Your task to perform on an android device: What's on my calendar tomorrow? Image 0: 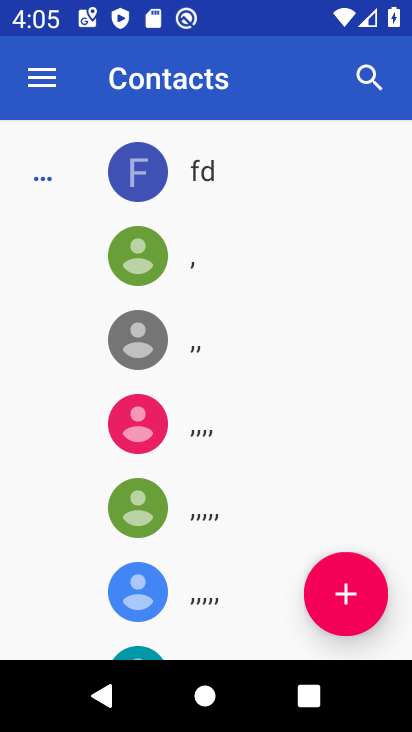
Step 0: press home button
Your task to perform on an android device: What's on my calendar tomorrow? Image 1: 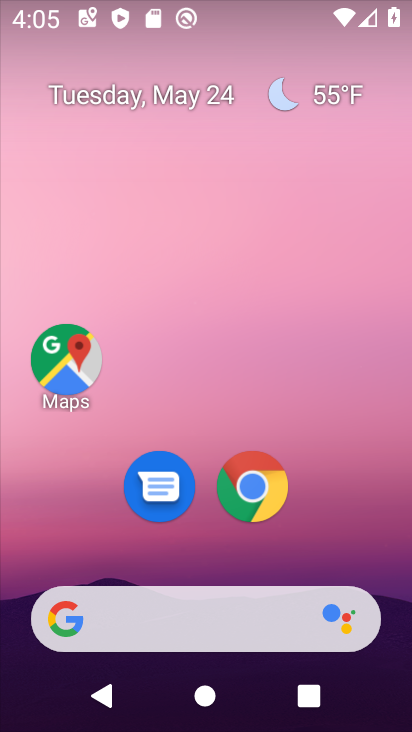
Step 1: drag from (307, 512) to (278, 181)
Your task to perform on an android device: What's on my calendar tomorrow? Image 2: 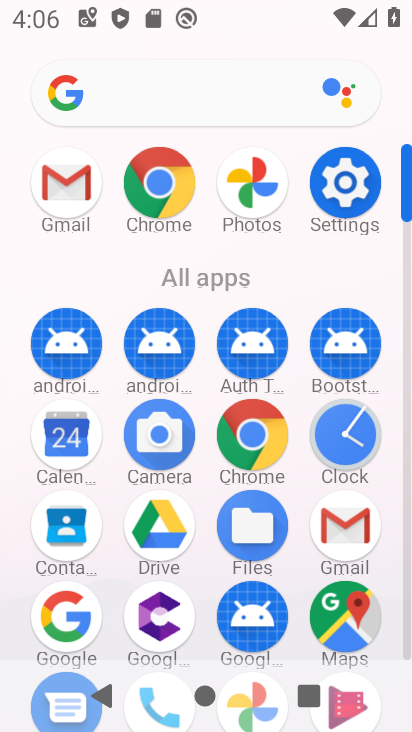
Step 2: click (54, 437)
Your task to perform on an android device: What's on my calendar tomorrow? Image 3: 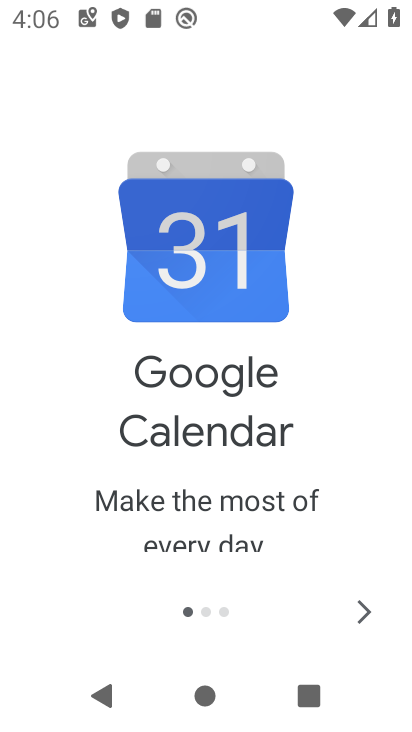
Step 3: click (362, 613)
Your task to perform on an android device: What's on my calendar tomorrow? Image 4: 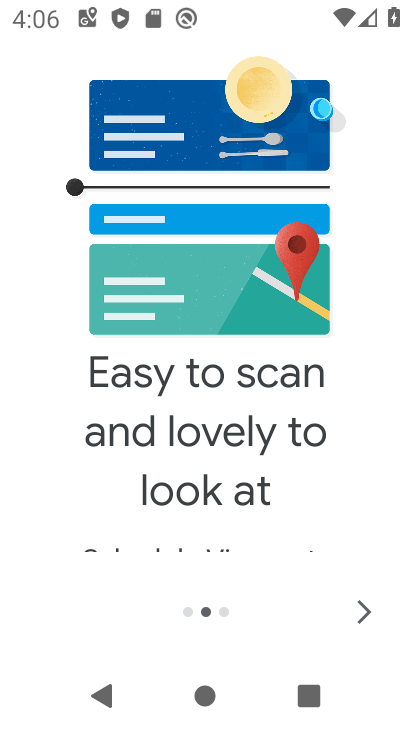
Step 4: click (362, 612)
Your task to perform on an android device: What's on my calendar tomorrow? Image 5: 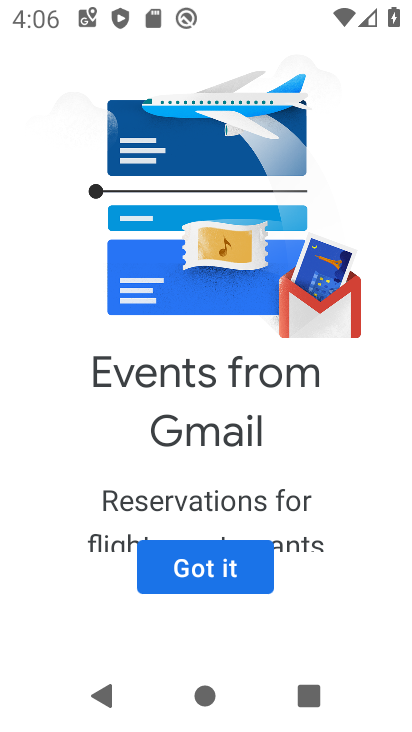
Step 5: click (227, 558)
Your task to perform on an android device: What's on my calendar tomorrow? Image 6: 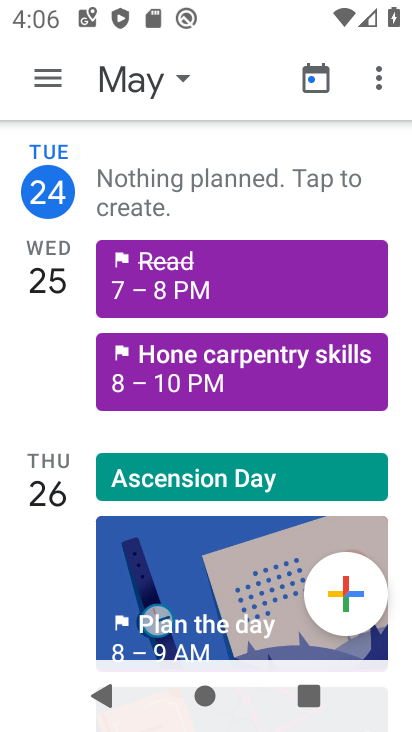
Step 6: click (39, 77)
Your task to perform on an android device: What's on my calendar tomorrow? Image 7: 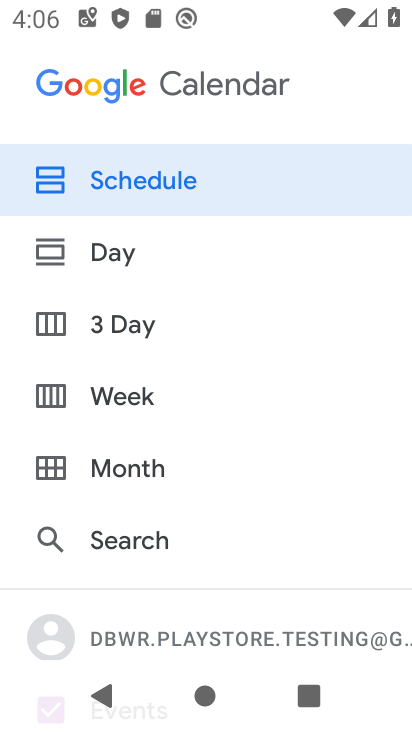
Step 7: click (109, 468)
Your task to perform on an android device: What's on my calendar tomorrow? Image 8: 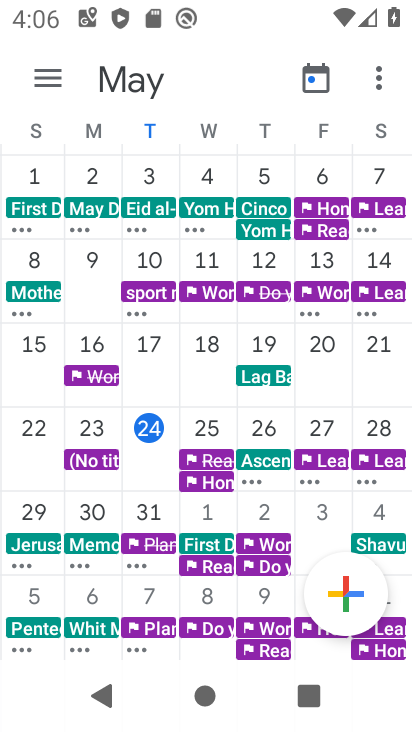
Step 8: click (197, 434)
Your task to perform on an android device: What's on my calendar tomorrow? Image 9: 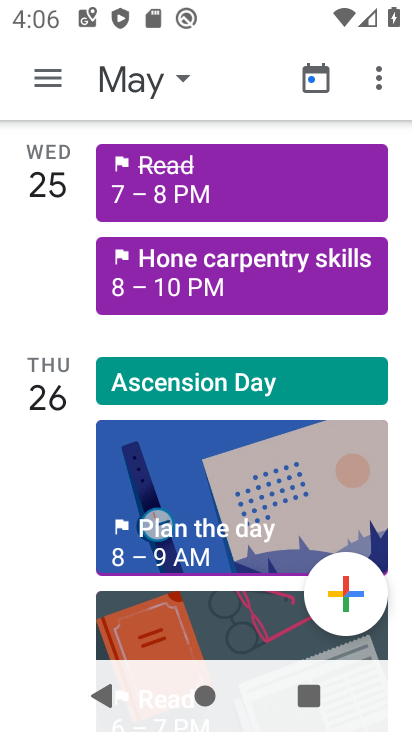
Step 9: task complete